Your task to perform on an android device: turn notification dots off Image 0: 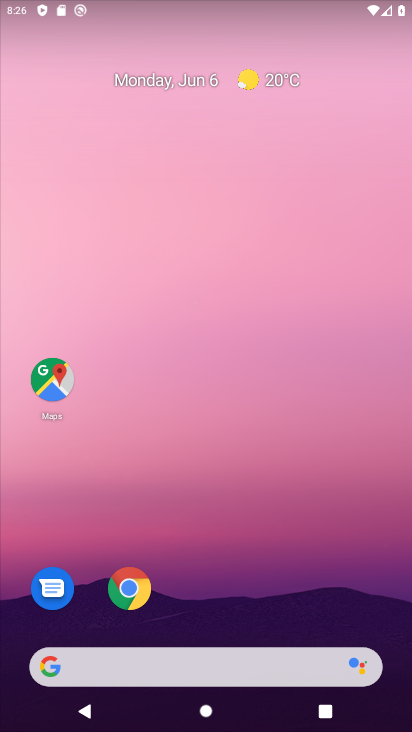
Step 0: drag from (298, 498) to (351, 1)
Your task to perform on an android device: turn notification dots off Image 1: 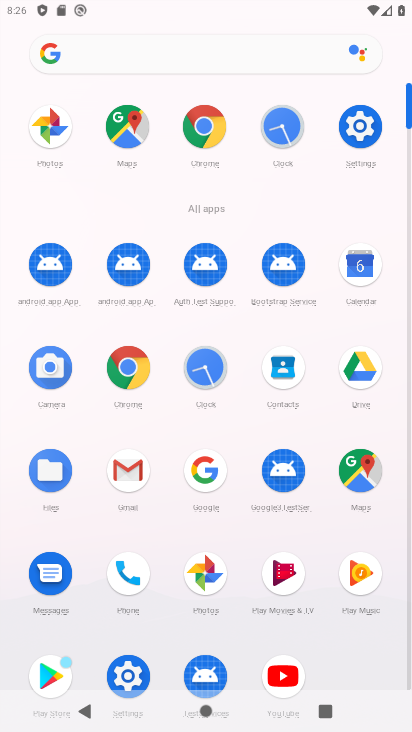
Step 1: click (363, 176)
Your task to perform on an android device: turn notification dots off Image 2: 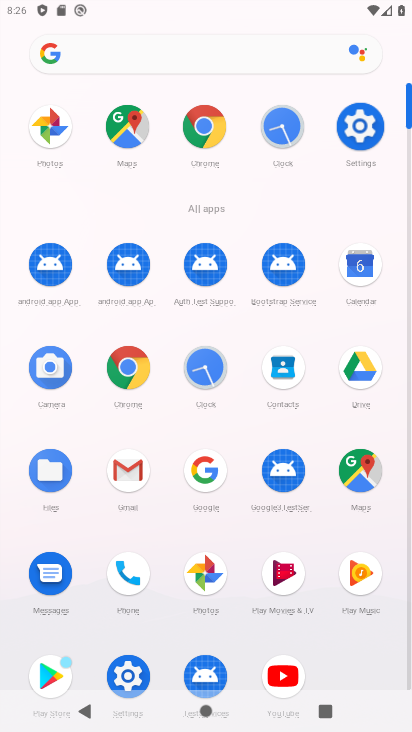
Step 2: click (377, 145)
Your task to perform on an android device: turn notification dots off Image 3: 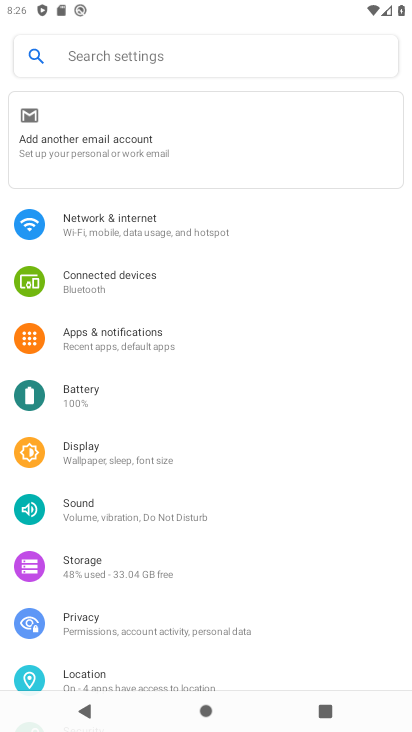
Step 3: click (148, 347)
Your task to perform on an android device: turn notification dots off Image 4: 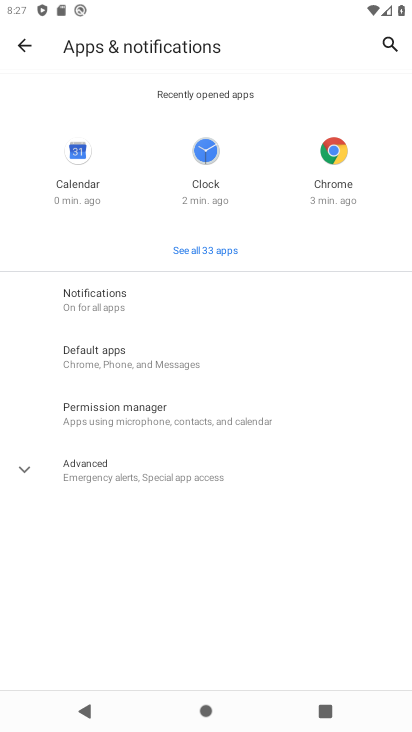
Step 4: click (112, 476)
Your task to perform on an android device: turn notification dots off Image 5: 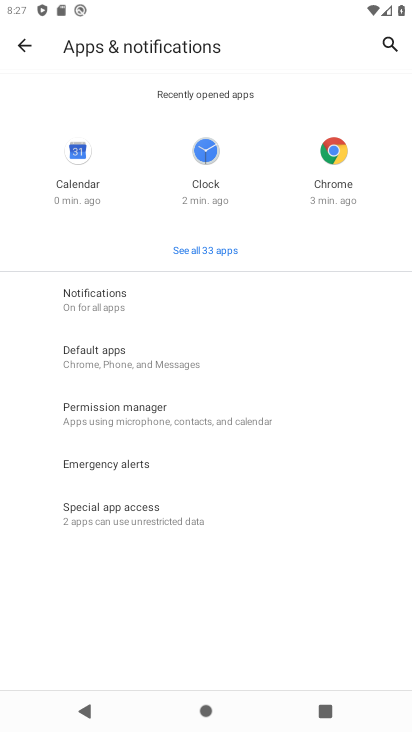
Step 5: click (102, 301)
Your task to perform on an android device: turn notification dots off Image 6: 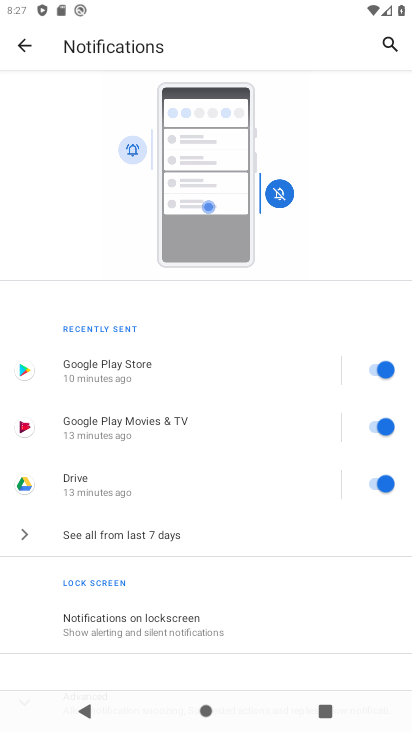
Step 6: drag from (176, 597) to (247, 278)
Your task to perform on an android device: turn notification dots off Image 7: 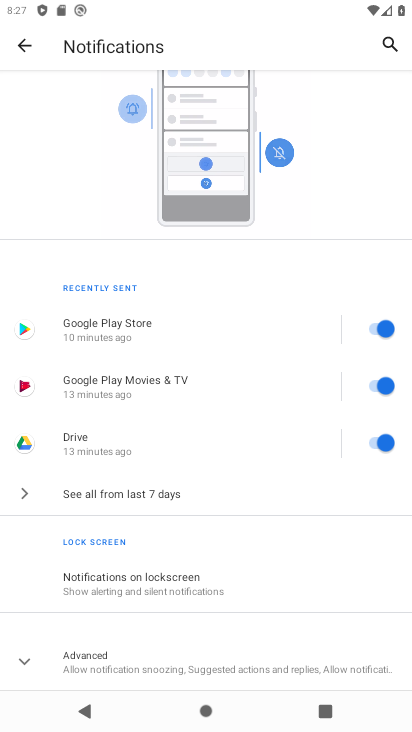
Step 7: click (165, 664)
Your task to perform on an android device: turn notification dots off Image 8: 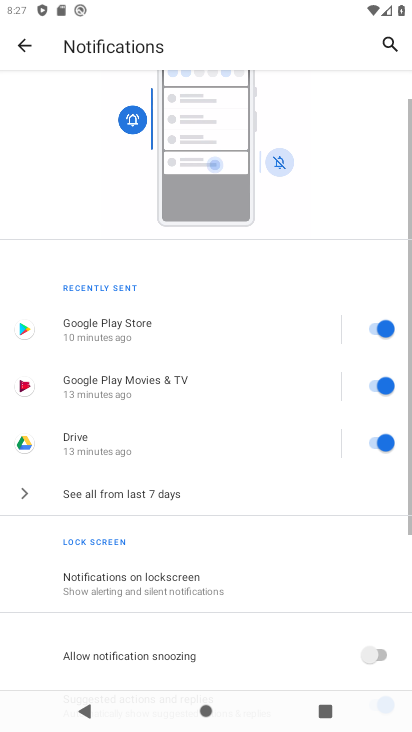
Step 8: drag from (165, 663) to (199, 225)
Your task to perform on an android device: turn notification dots off Image 9: 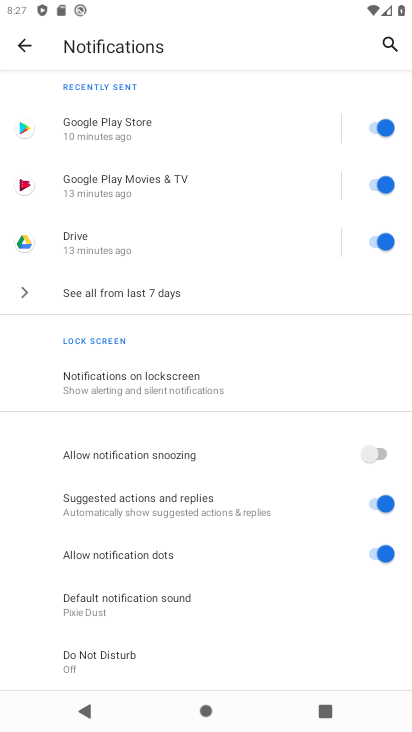
Step 9: click (373, 556)
Your task to perform on an android device: turn notification dots off Image 10: 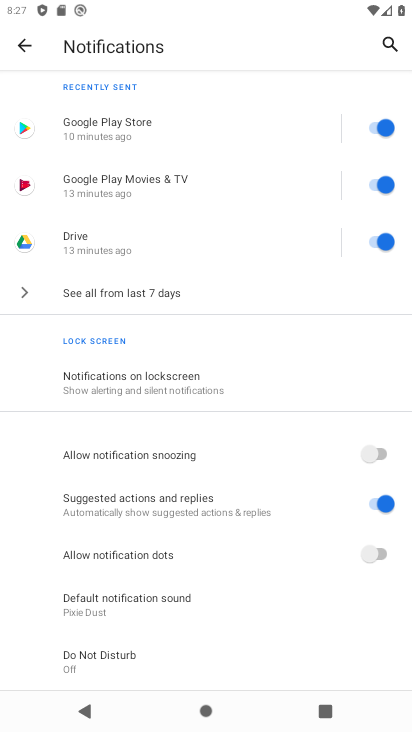
Step 10: task complete